Your task to perform on an android device: turn notification dots on Image 0: 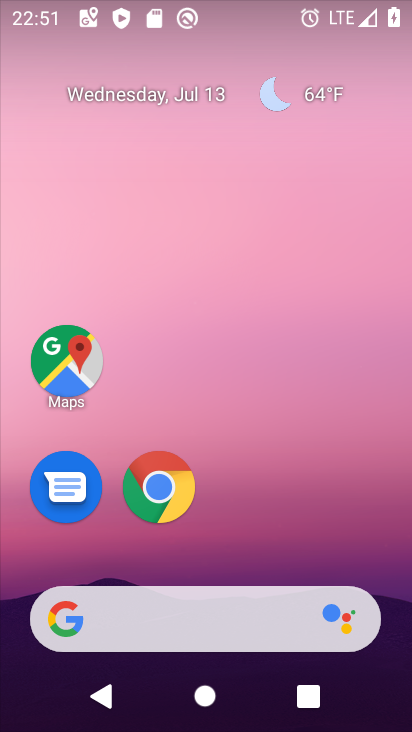
Step 0: drag from (180, 559) to (264, 26)
Your task to perform on an android device: turn notification dots on Image 1: 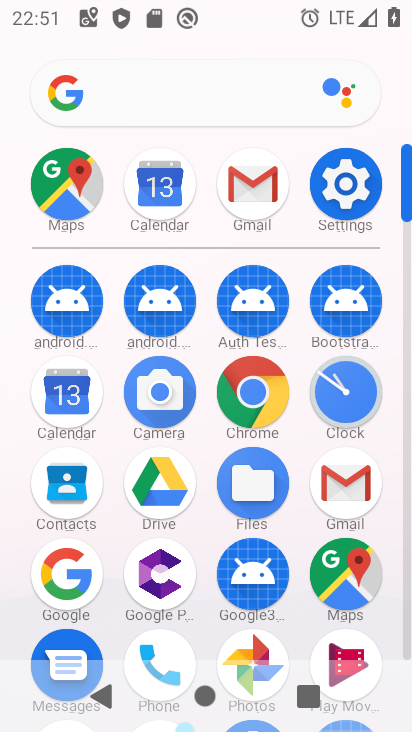
Step 1: click (362, 189)
Your task to perform on an android device: turn notification dots on Image 2: 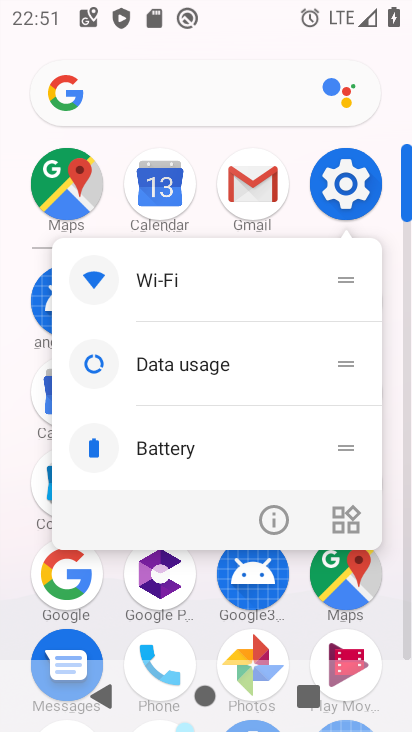
Step 2: click (337, 188)
Your task to perform on an android device: turn notification dots on Image 3: 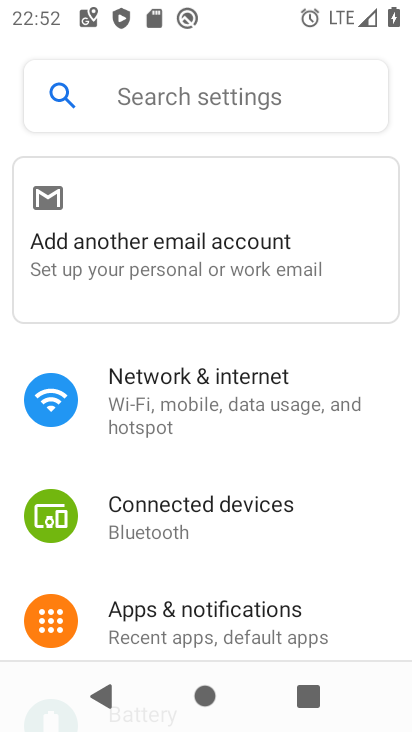
Step 3: click (184, 617)
Your task to perform on an android device: turn notification dots on Image 4: 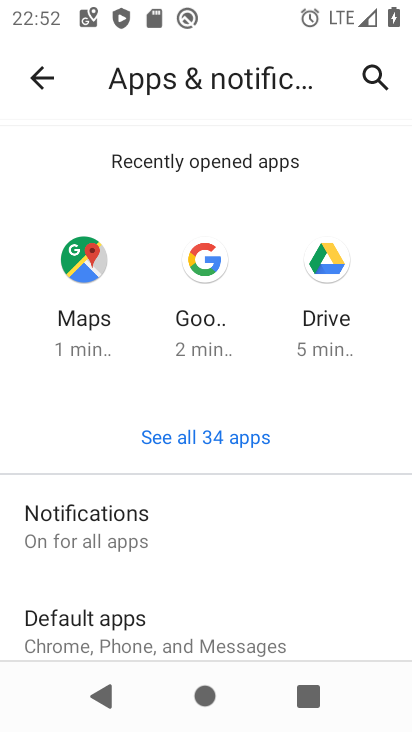
Step 4: click (154, 521)
Your task to perform on an android device: turn notification dots on Image 5: 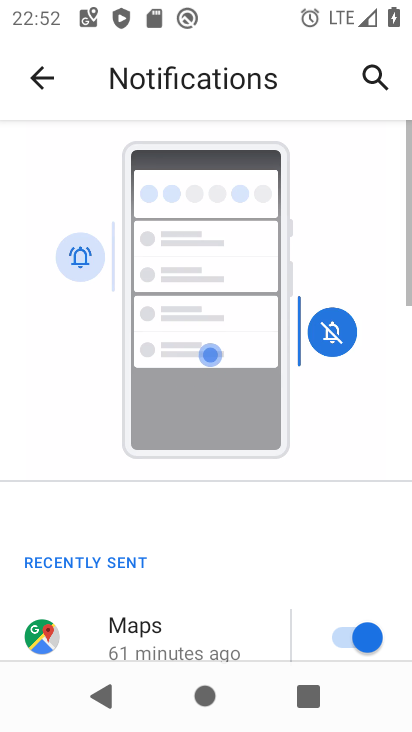
Step 5: drag from (159, 561) to (320, 16)
Your task to perform on an android device: turn notification dots on Image 6: 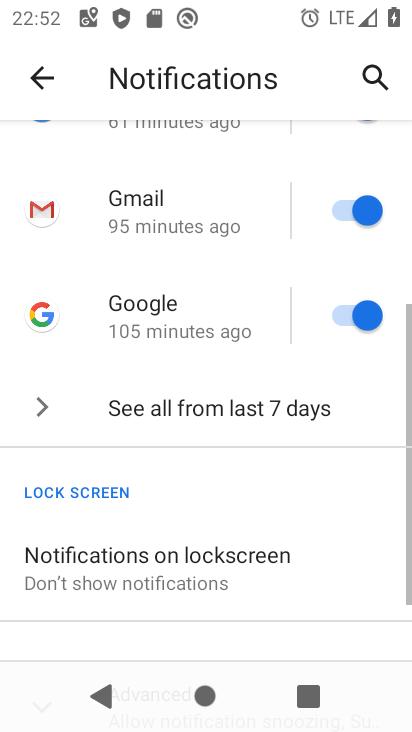
Step 6: drag from (191, 582) to (230, 75)
Your task to perform on an android device: turn notification dots on Image 7: 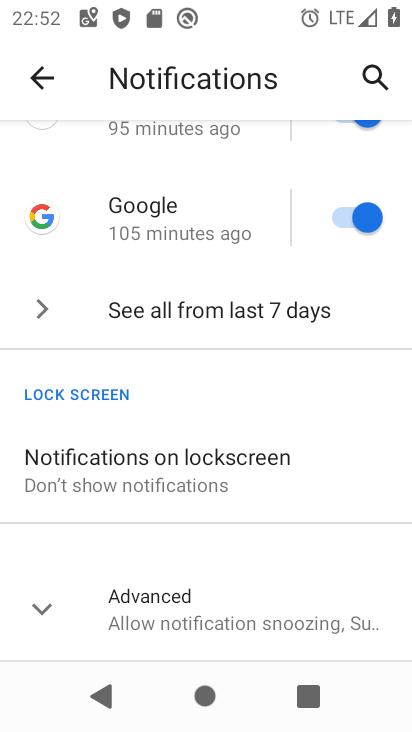
Step 7: click (202, 624)
Your task to perform on an android device: turn notification dots on Image 8: 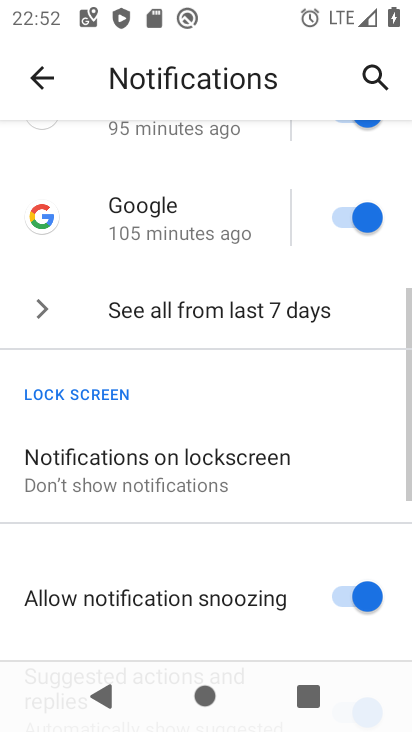
Step 8: task complete